Your task to perform on an android device: change notification settings in the gmail app Image 0: 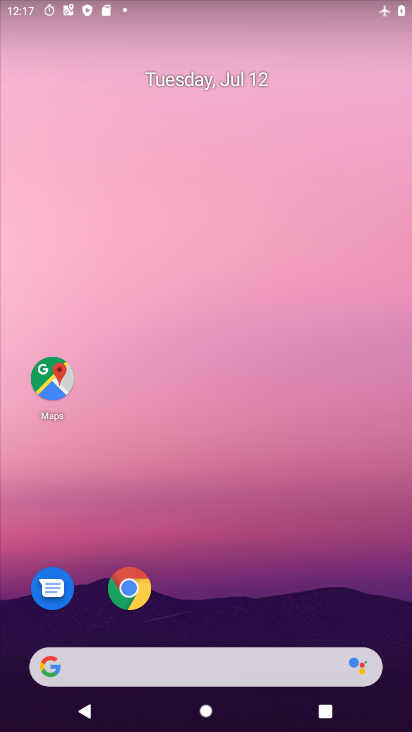
Step 0: drag from (243, 554) to (204, 178)
Your task to perform on an android device: change notification settings in the gmail app Image 1: 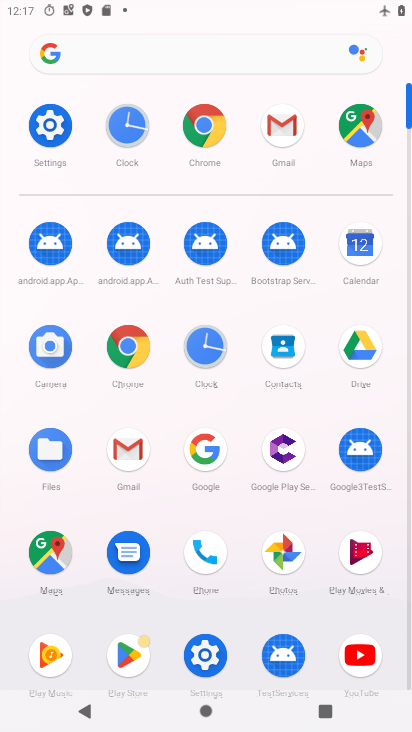
Step 1: click (284, 126)
Your task to perform on an android device: change notification settings in the gmail app Image 2: 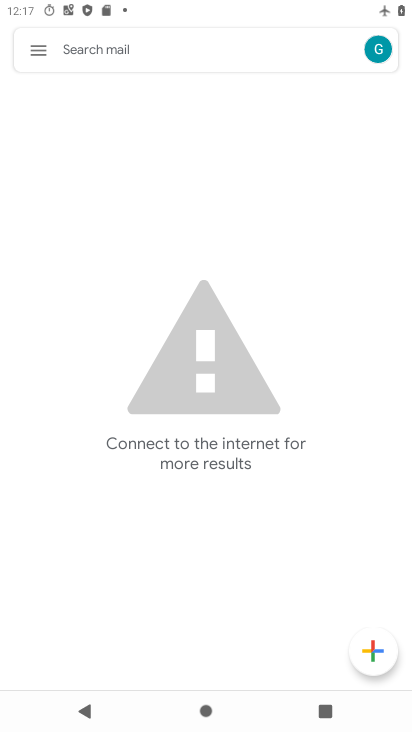
Step 2: click (38, 43)
Your task to perform on an android device: change notification settings in the gmail app Image 3: 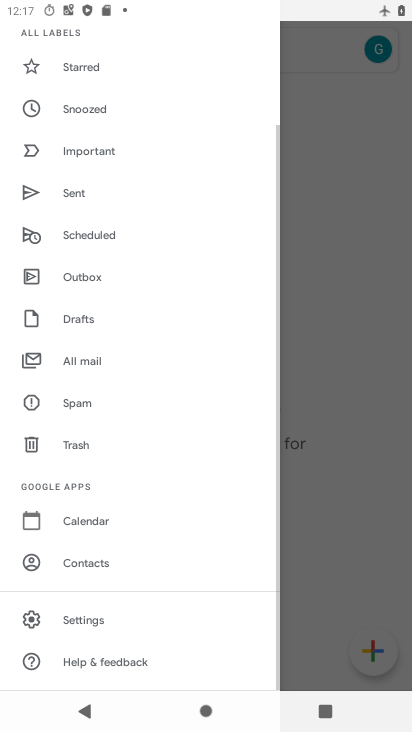
Step 3: click (78, 617)
Your task to perform on an android device: change notification settings in the gmail app Image 4: 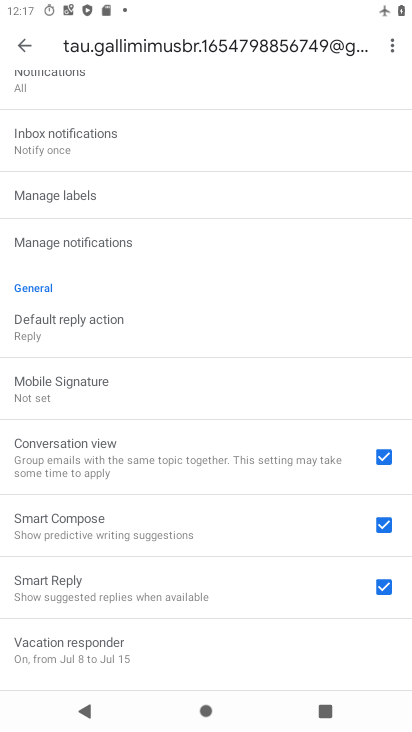
Step 4: click (101, 247)
Your task to perform on an android device: change notification settings in the gmail app Image 5: 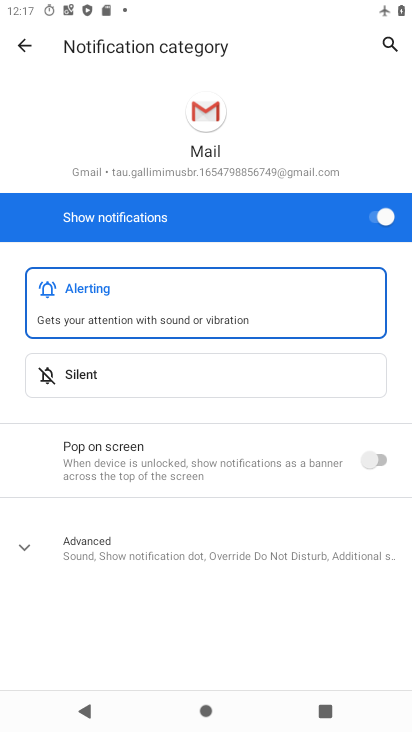
Step 5: drag from (384, 214) to (315, 372)
Your task to perform on an android device: change notification settings in the gmail app Image 6: 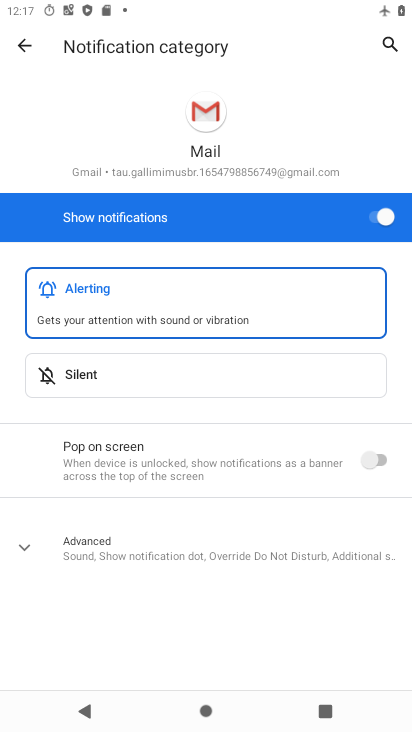
Step 6: click (380, 211)
Your task to perform on an android device: change notification settings in the gmail app Image 7: 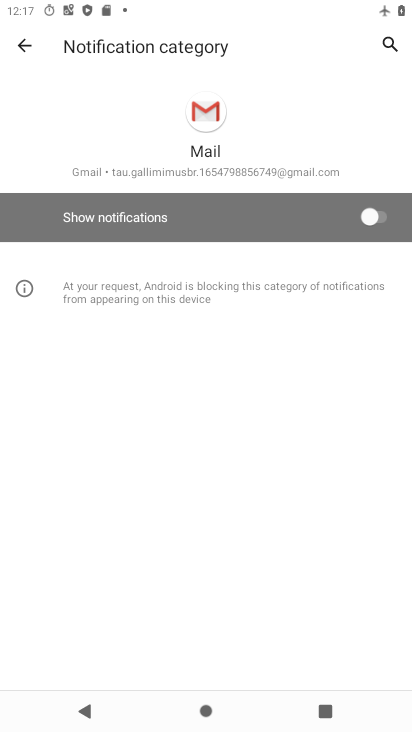
Step 7: task complete